Your task to perform on an android device: change the clock display to digital Image 0: 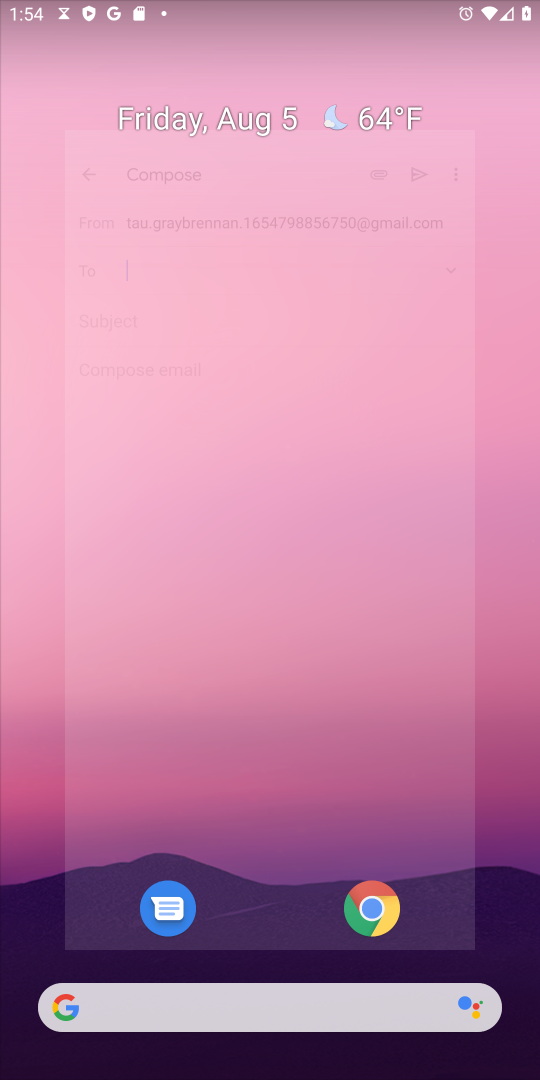
Step 0: drag from (253, 897) to (377, 19)
Your task to perform on an android device: change the clock display to digital Image 1: 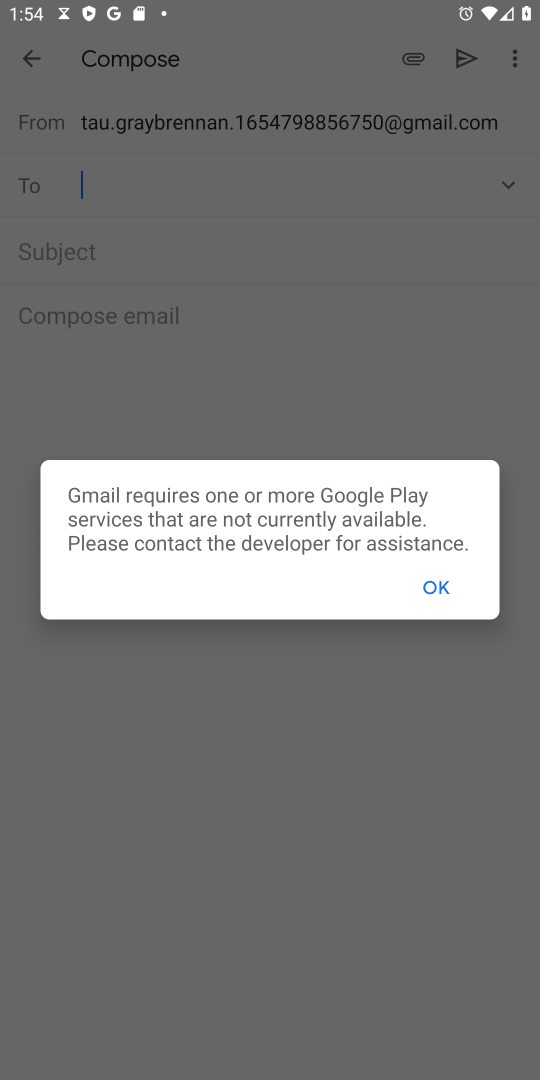
Step 1: press home button
Your task to perform on an android device: change the clock display to digital Image 2: 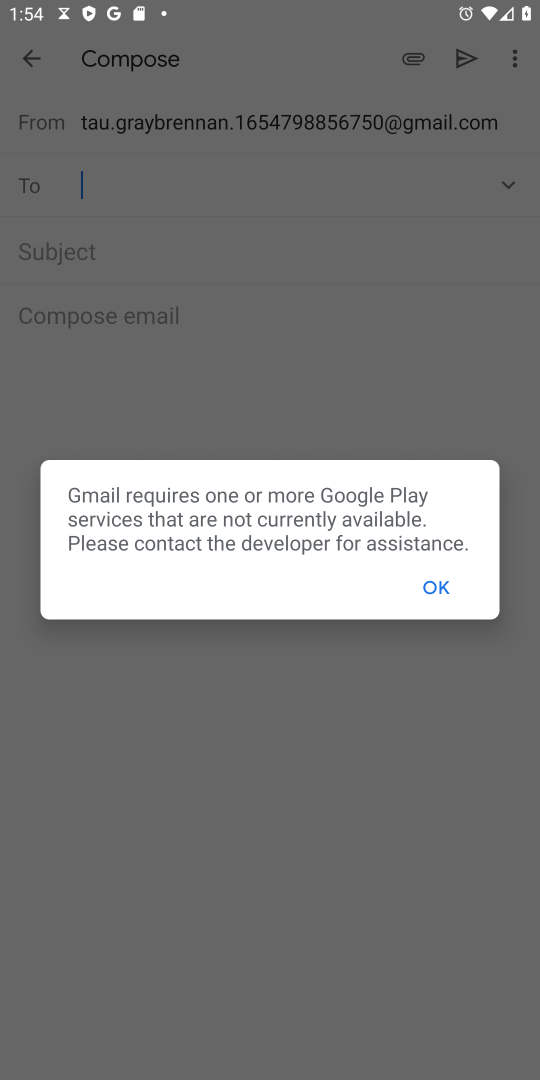
Step 2: press home button
Your task to perform on an android device: change the clock display to digital Image 3: 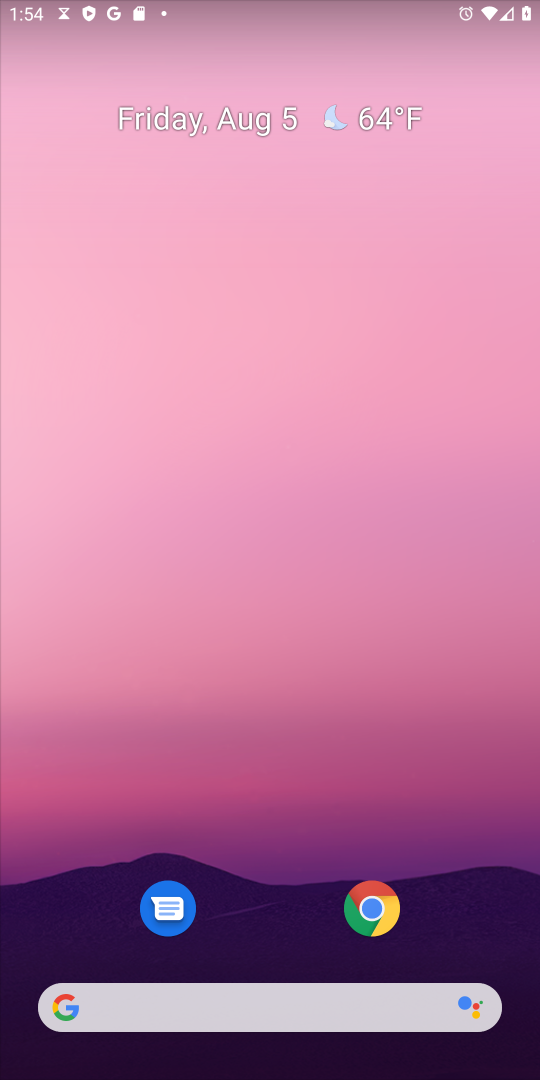
Step 3: drag from (200, 825) to (254, 220)
Your task to perform on an android device: change the clock display to digital Image 4: 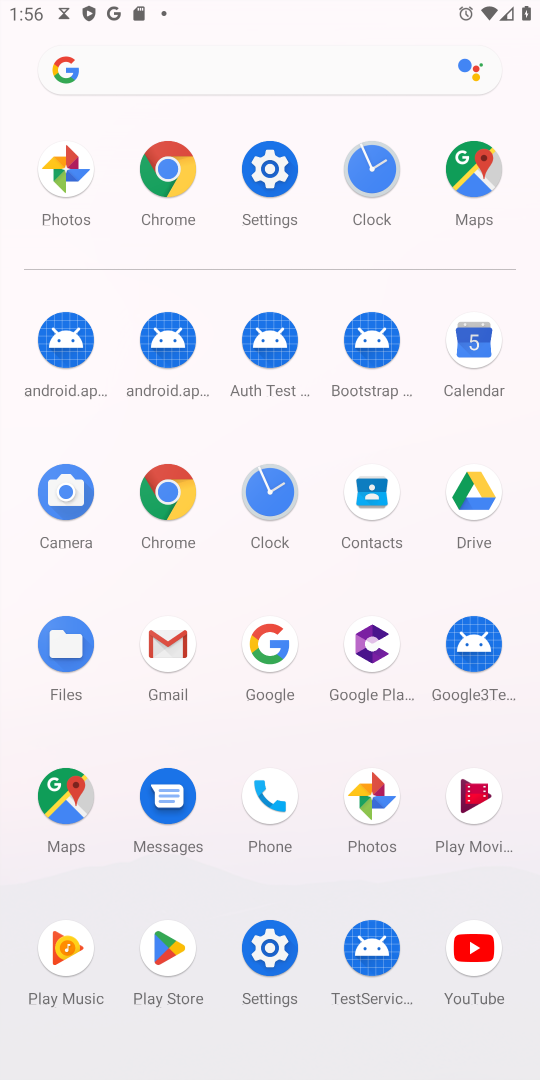
Step 4: click (282, 509)
Your task to perform on an android device: change the clock display to digital Image 5: 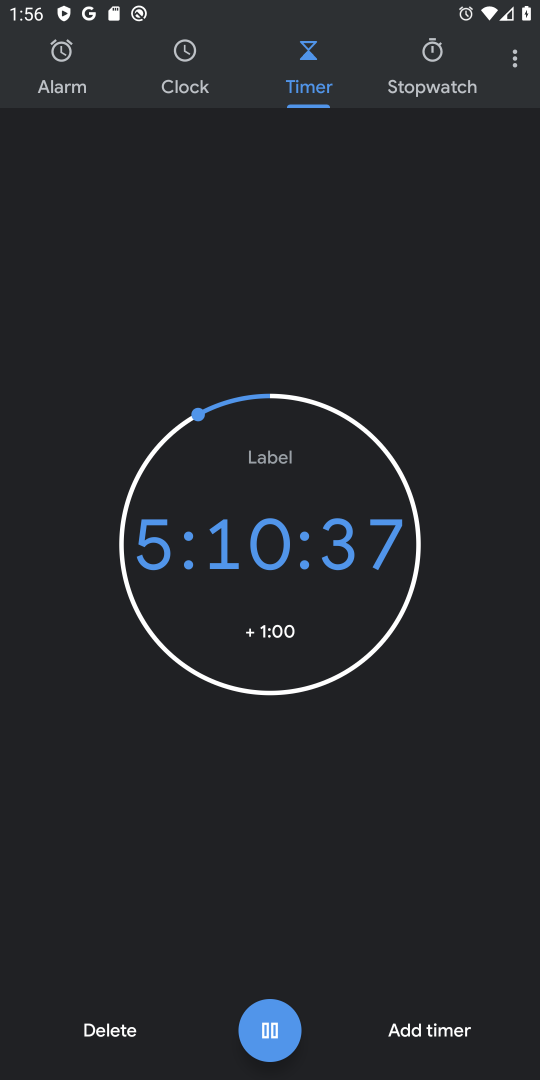
Step 5: click (512, 68)
Your task to perform on an android device: change the clock display to digital Image 6: 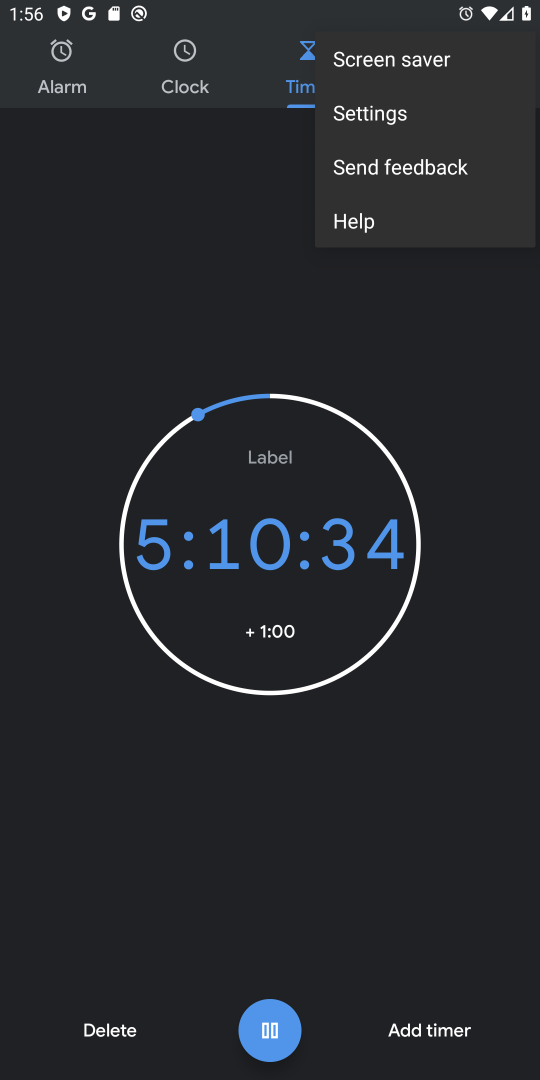
Step 6: click (407, 122)
Your task to perform on an android device: change the clock display to digital Image 7: 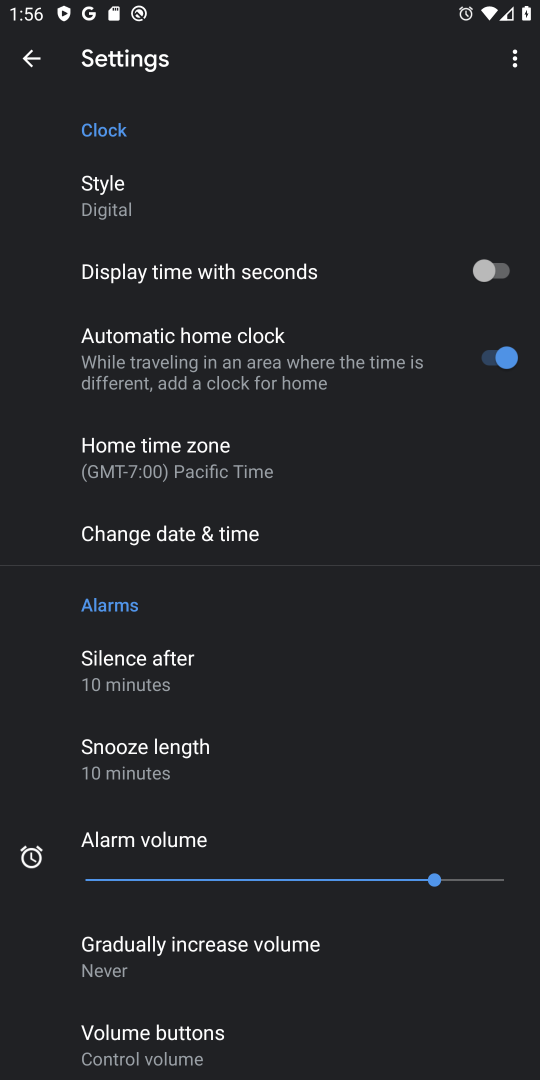
Step 7: task complete